Your task to perform on an android device: Go to accessibility settings Image 0: 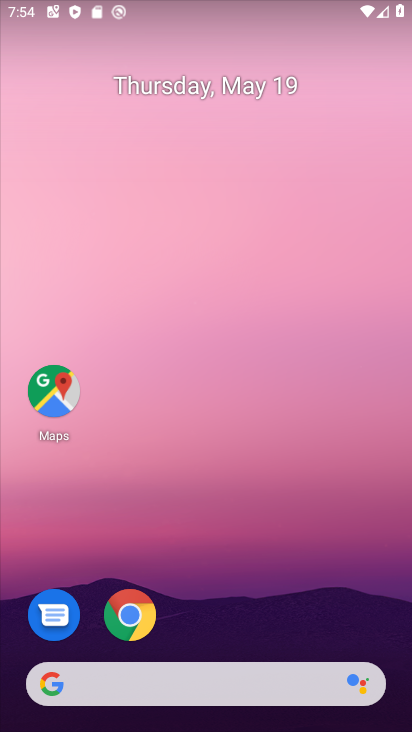
Step 0: drag from (167, 692) to (268, 29)
Your task to perform on an android device: Go to accessibility settings Image 1: 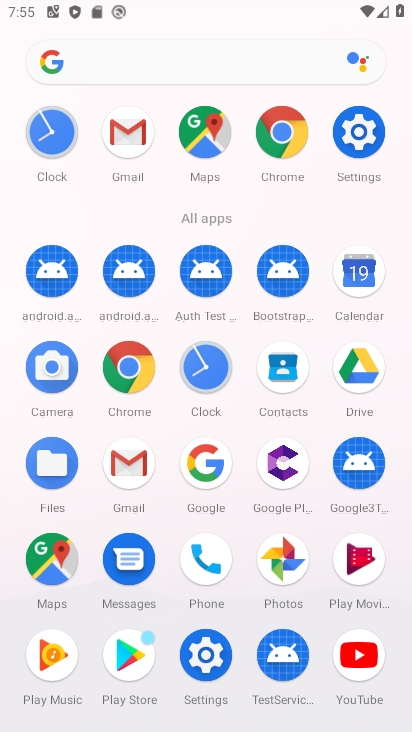
Step 1: click (368, 151)
Your task to perform on an android device: Go to accessibility settings Image 2: 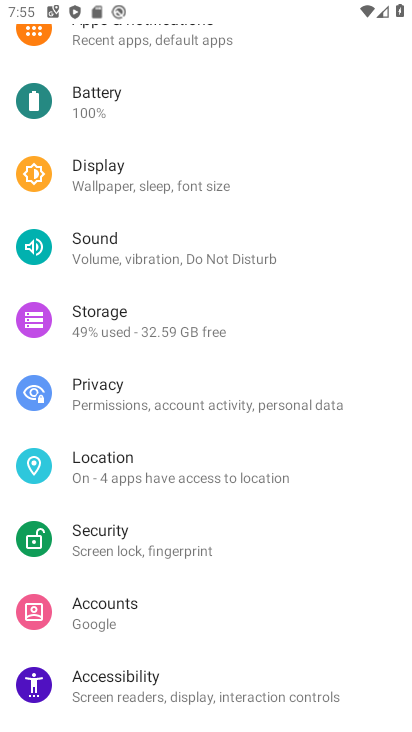
Step 2: click (212, 678)
Your task to perform on an android device: Go to accessibility settings Image 3: 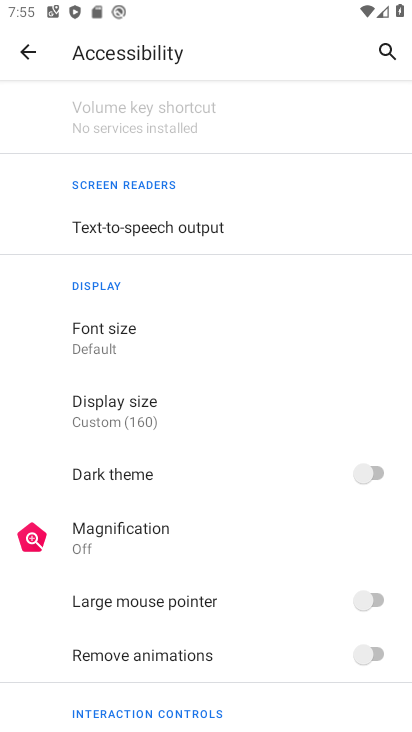
Step 3: task complete